Your task to perform on an android device: Open the calendar app, open the side menu, and click the "Day" option Image 0: 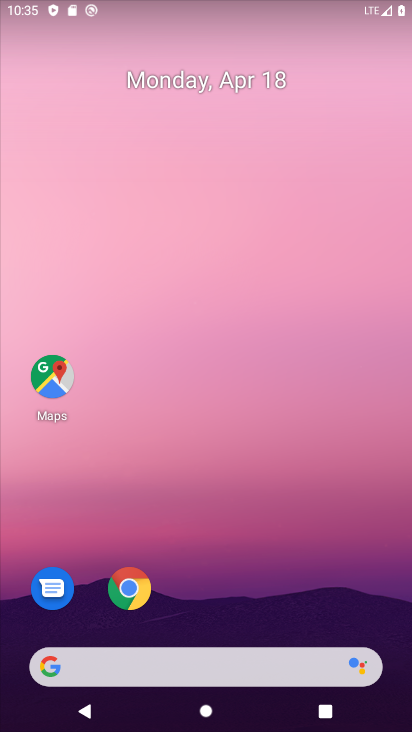
Step 0: drag from (400, 673) to (339, 126)
Your task to perform on an android device: Open the calendar app, open the side menu, and click the "Day" option Image 1: 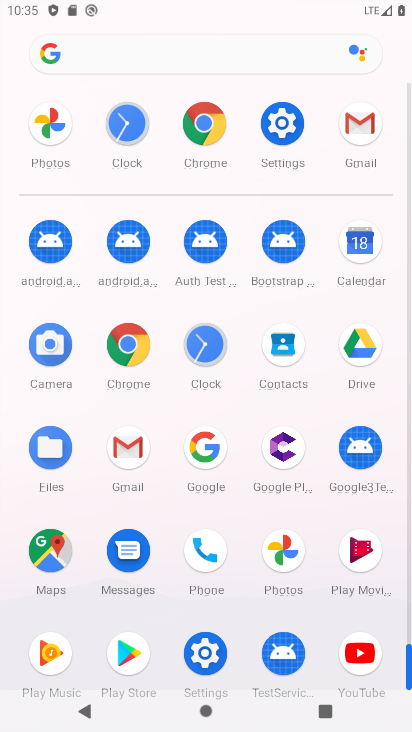
Step 1: click (360, 240)
Your task to perform on an android device: Open the calendar app, open the side menu, and click the "Day" option Image 2: 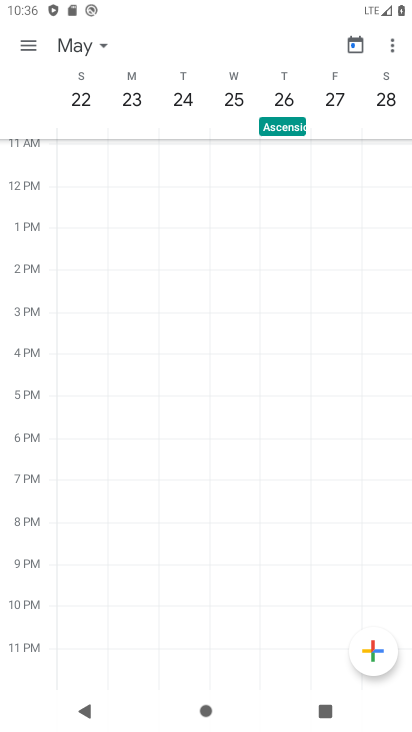
Step 2: click (26, 44)
Your task to perform on an android device: Open the calendar app, open the side menu, and click the "Day" option Image 3: 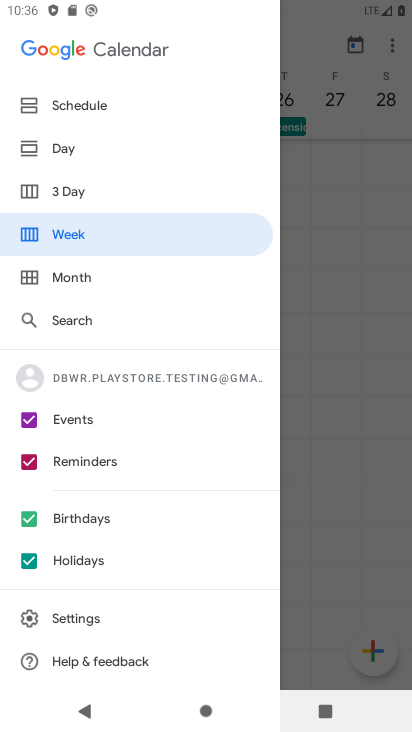
Step 3: click (65, 147)
Your task to perform on an android device: Open the calendar app, open the side menu, and click the "Day" option Image 4: 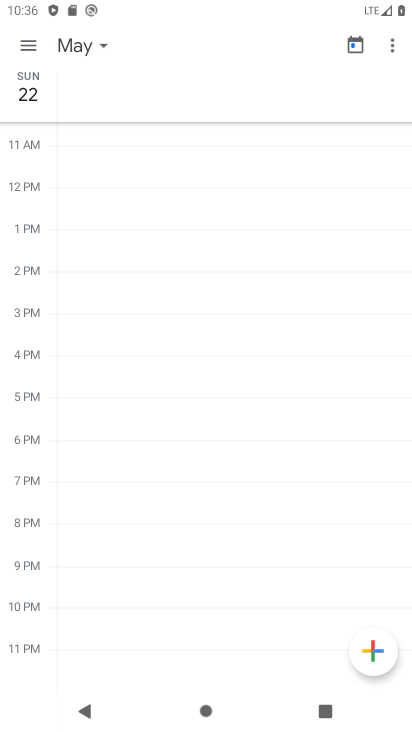
Step 4: task complete